Your task to perform on an android device: Check the news Image 0: 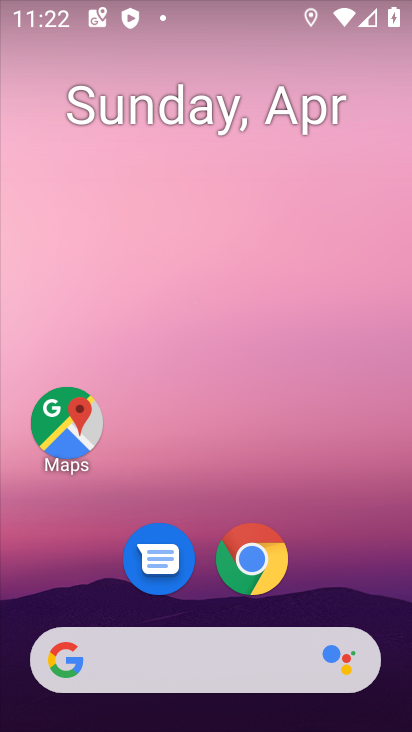
Step 0: drag from (325, 574) to (411, 98)
Your task to perform on an android device: Check the news Image 1: 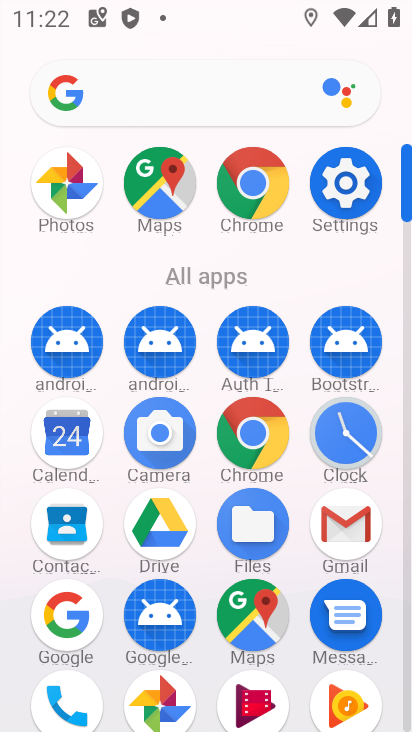
Step 1: click (115, 101)
Your task to perform on an android device: Check the news Image 2: 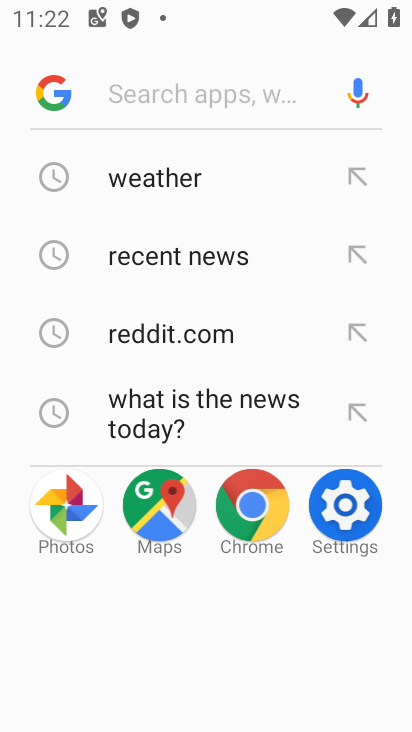
Step 2: type "news"
Your task to perform on an android device: Check the news Image 3: 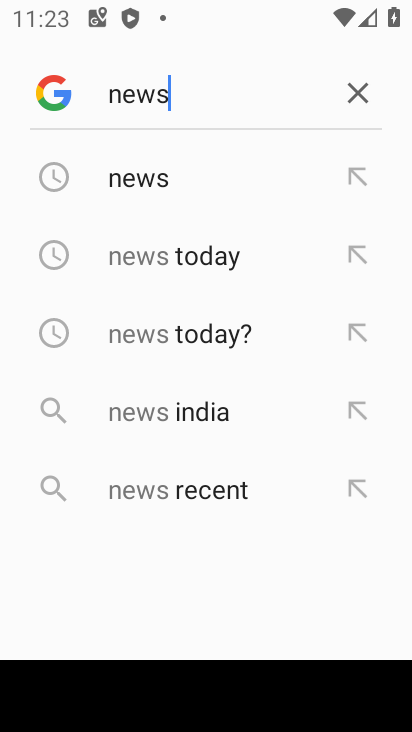
Step 3: click (128, 168)
Your task to perform on an android device: Check the news Image 4: 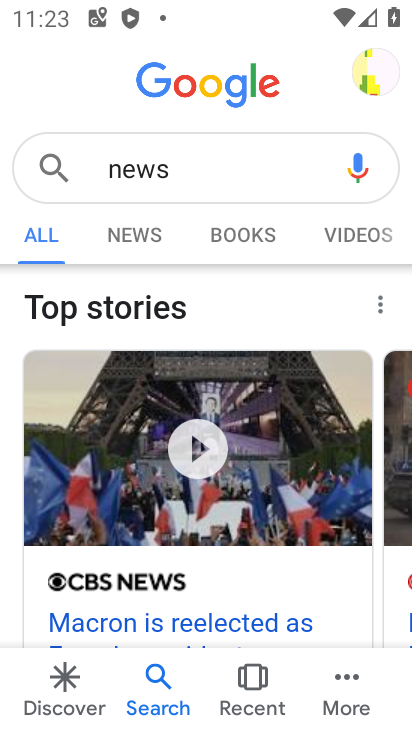
Step 4: click (132, 227)
Your task to perform on an android device: Check the news Image 5: 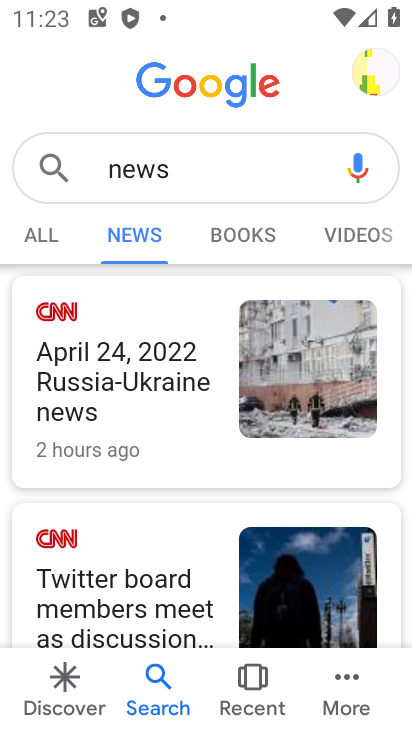
Step 5: task complete